Your task to perform on an android device: Show me recent news Image 0: 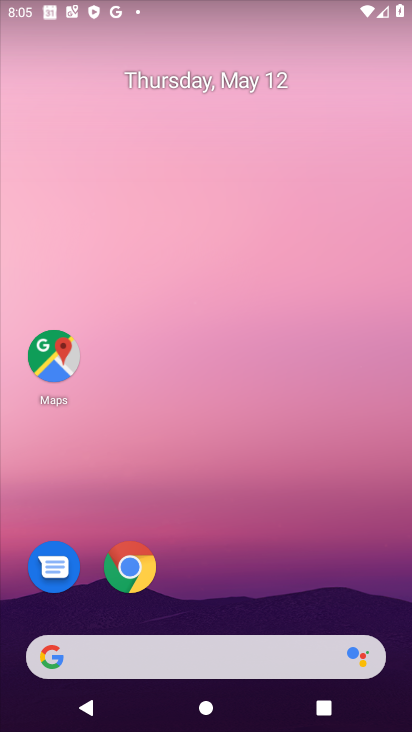
Step 0: drag from (253, 587) to (249, 124)
Your task to perform on an android device: Show me recent news Image 1: 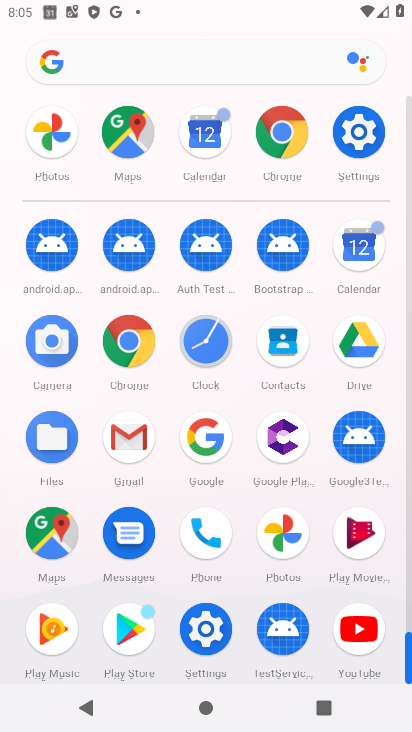
Step 1: click (210, 449)
Your task to perform on an android device: Show me recent news Image 2: 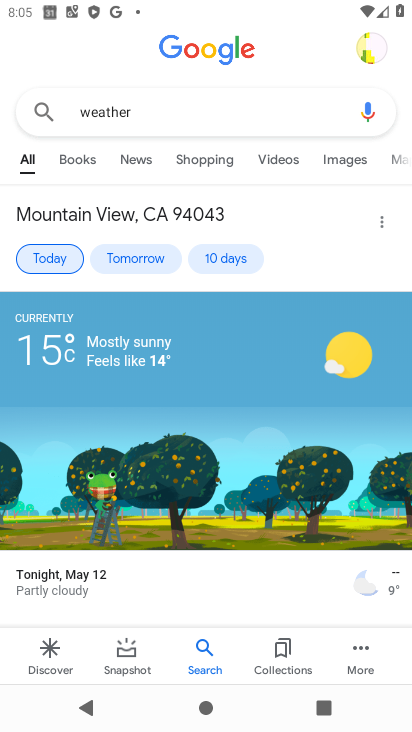
Step 2: click (177, 116)
Your task to perform on an android device: Show me recent news Image 3: 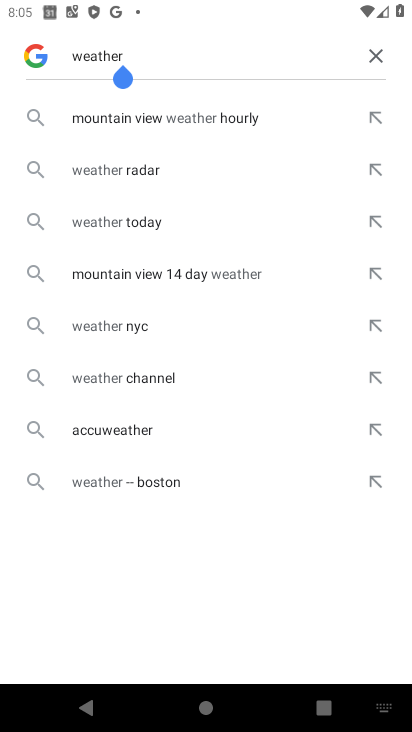
Step 3: click (376, 53)
Your task to perform on an android device: Show me recent news Image 4: 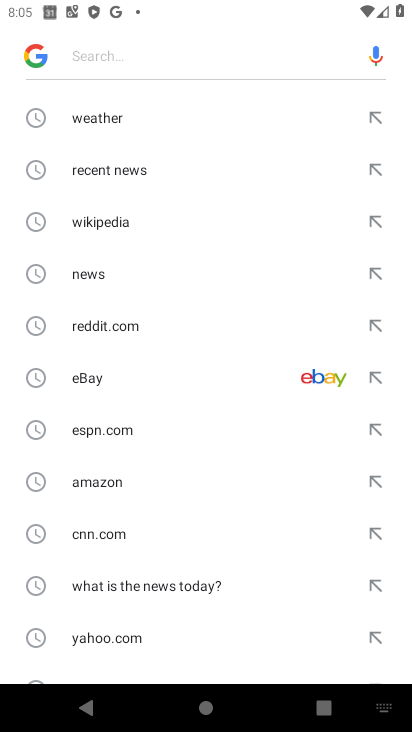
Step 4: click (88, 278)
Your task to perform on an android device: Show me recent news Image 5: 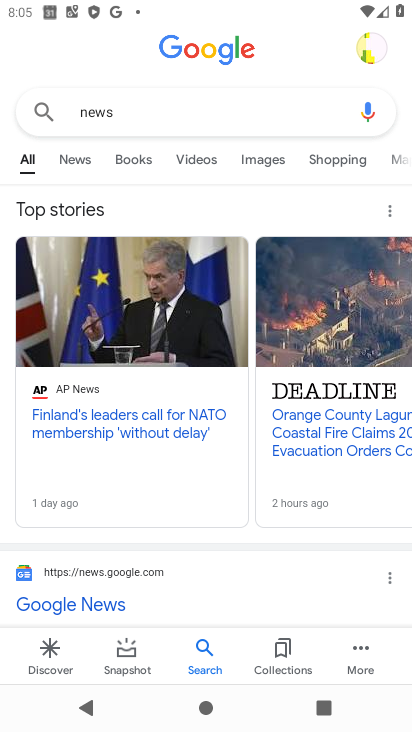
Step 5: click (84, 158)
Your task to perform on an android device: Show me recent news Image 6: 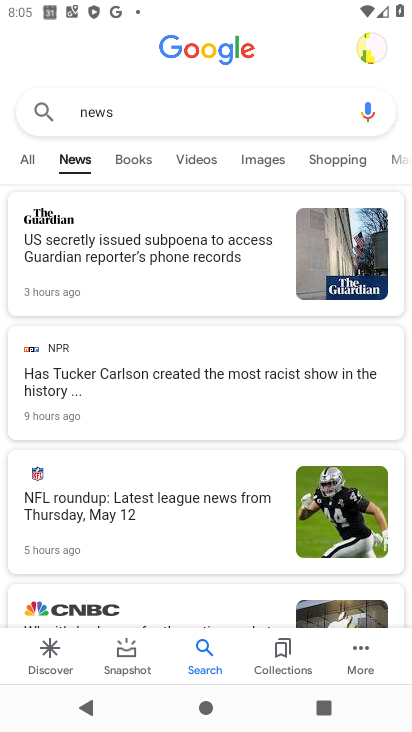
Step 6: task complete